Your task to perform on an android device: open app "Reddit" Image 0: 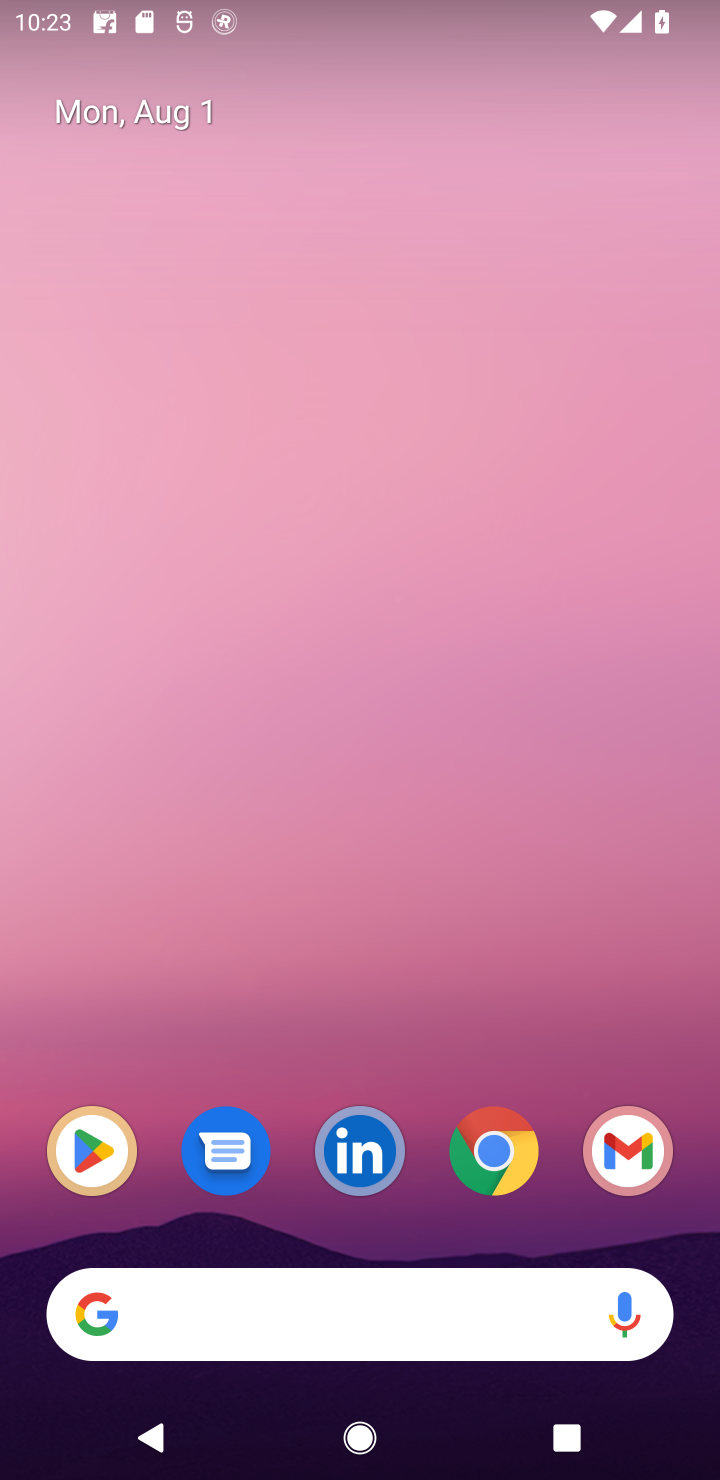
Step 0: click (95, 1171)
Your task to perform on an android device: open app "Reddit" Image 1: 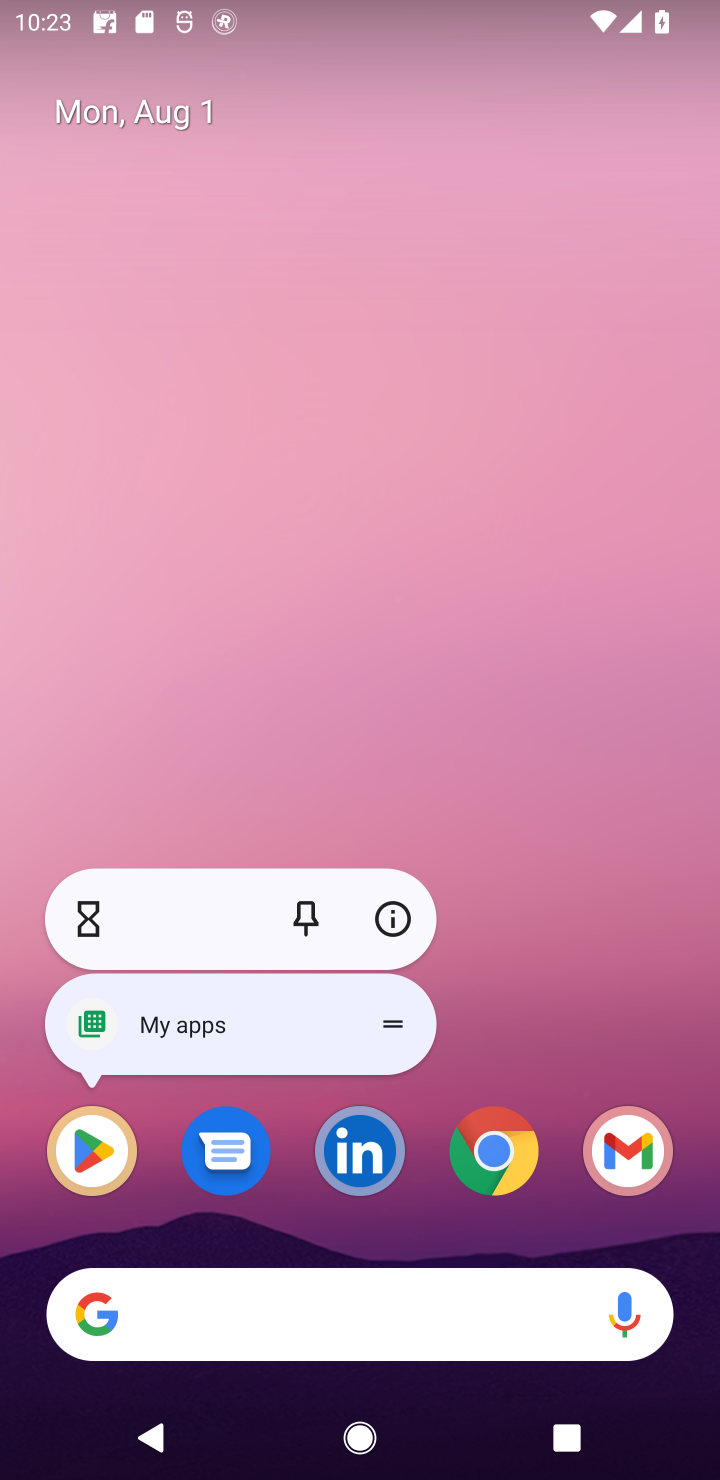
Step 1: click (85, 1166)
Your task to perform on an android device: open app "Reddit" Image 2: 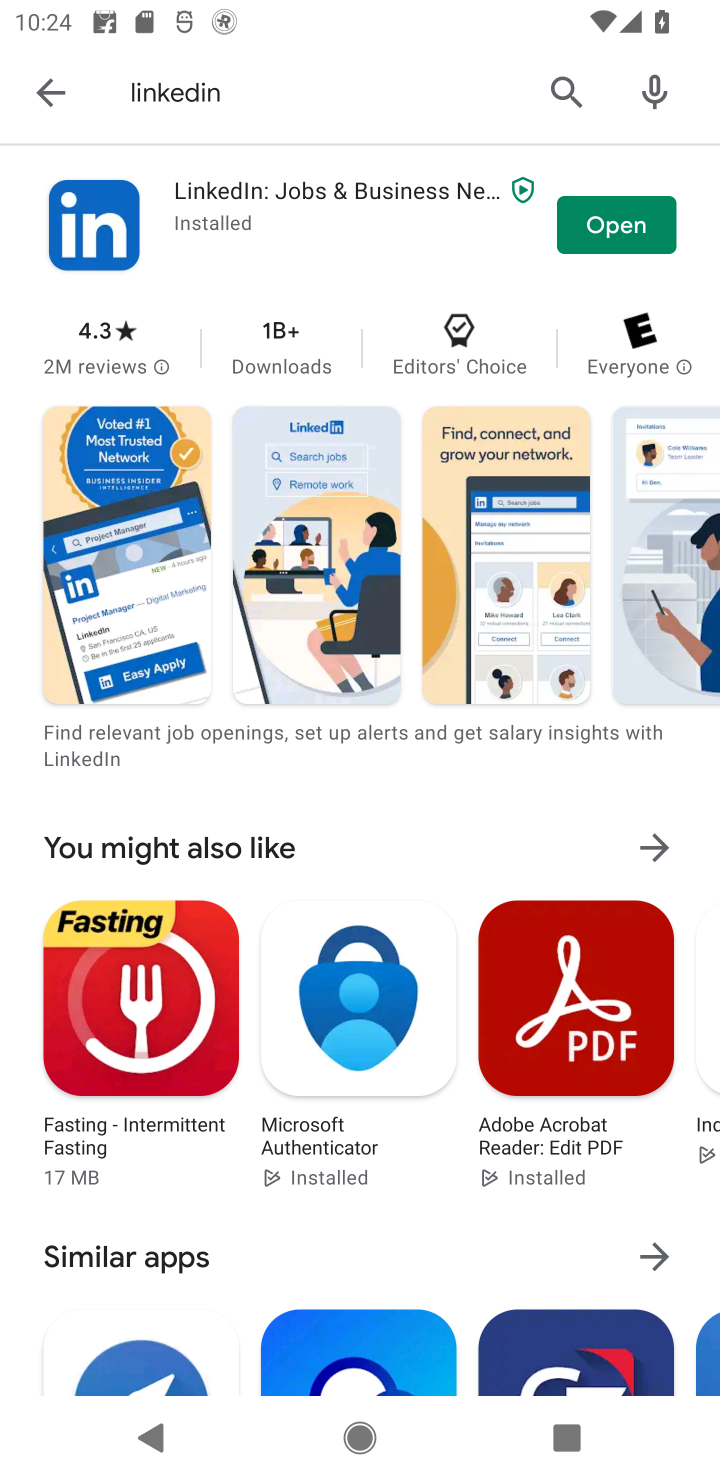
Step 2: click (111, 1140)
Your task to perform on an android device: open app "Reddit" Image 3: 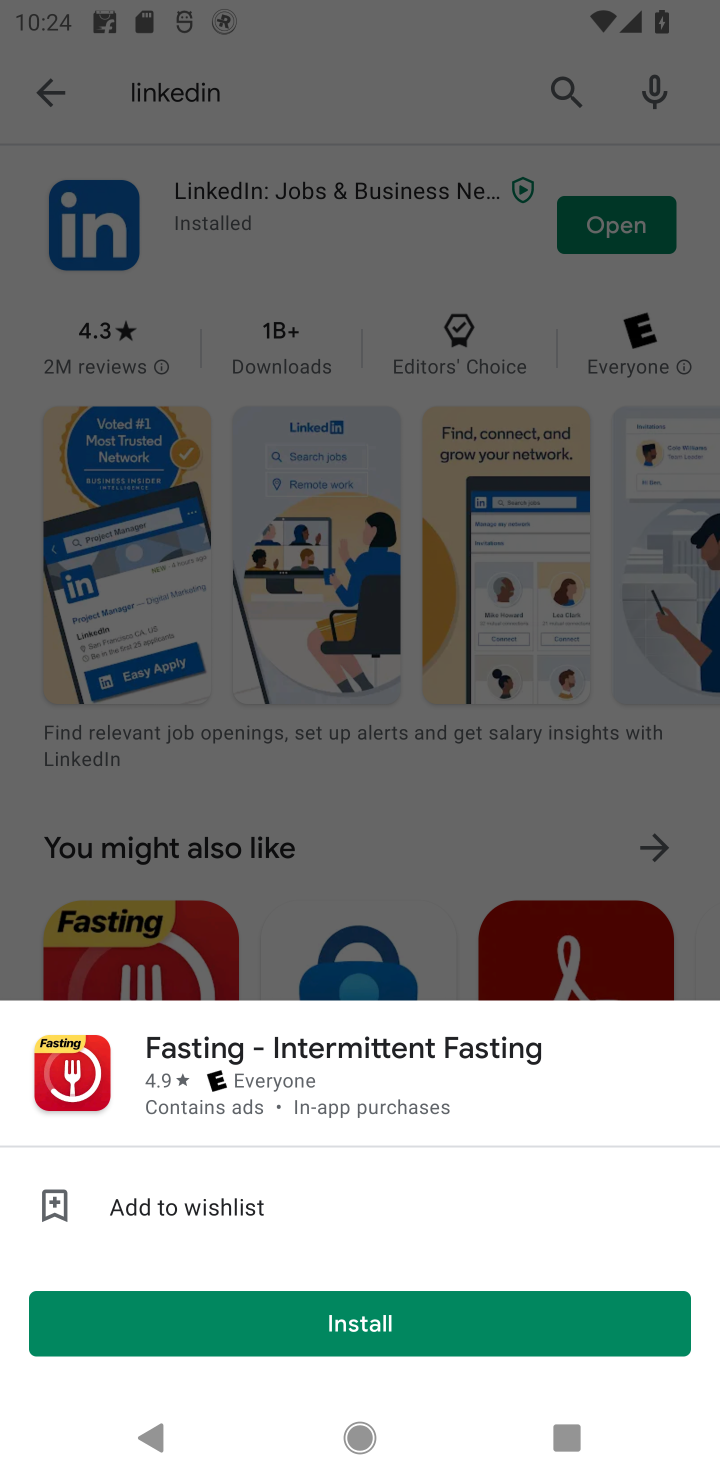
Step 3: click (547, 88)
Your task to perform on an android device: open app "Reddit" Image 4: 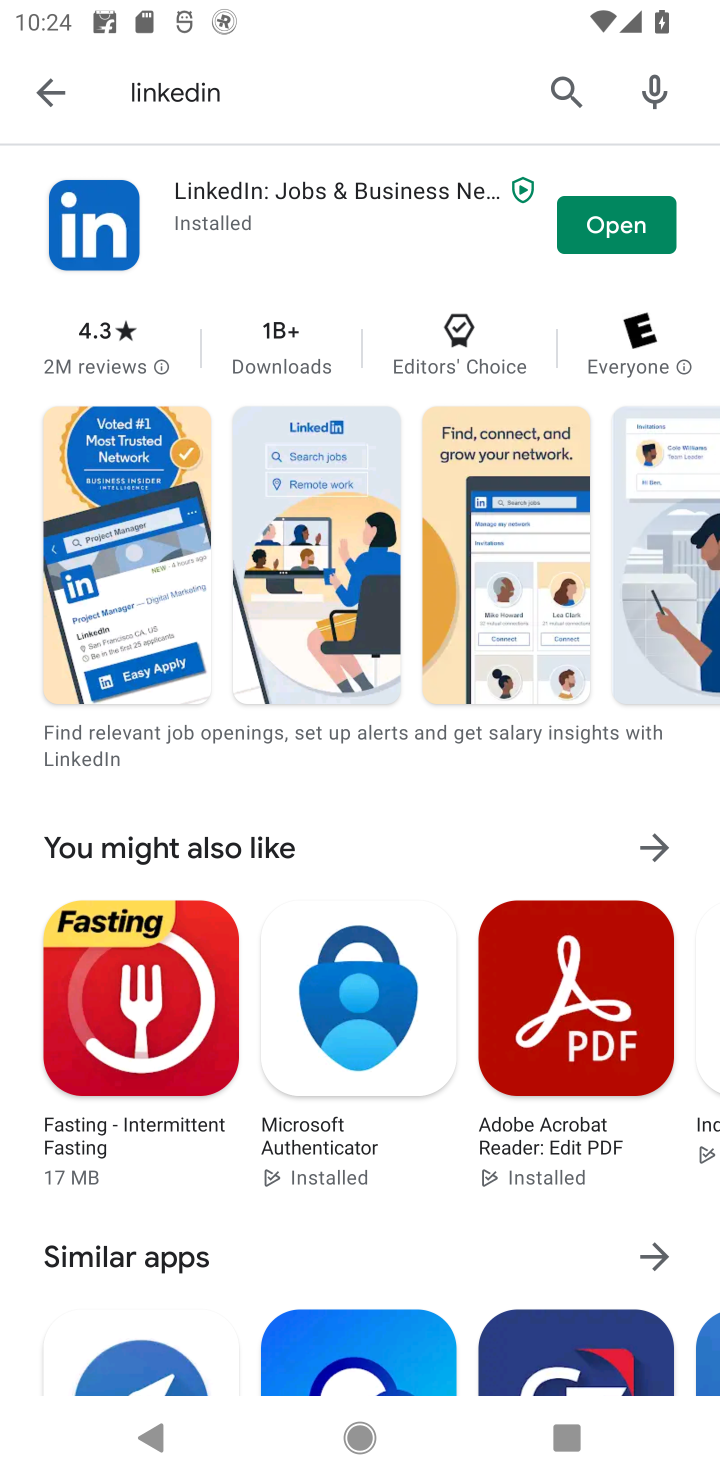
Step 4: click (547, 88)
Your task to perform on an android device: open app "Reddit" Image 5: 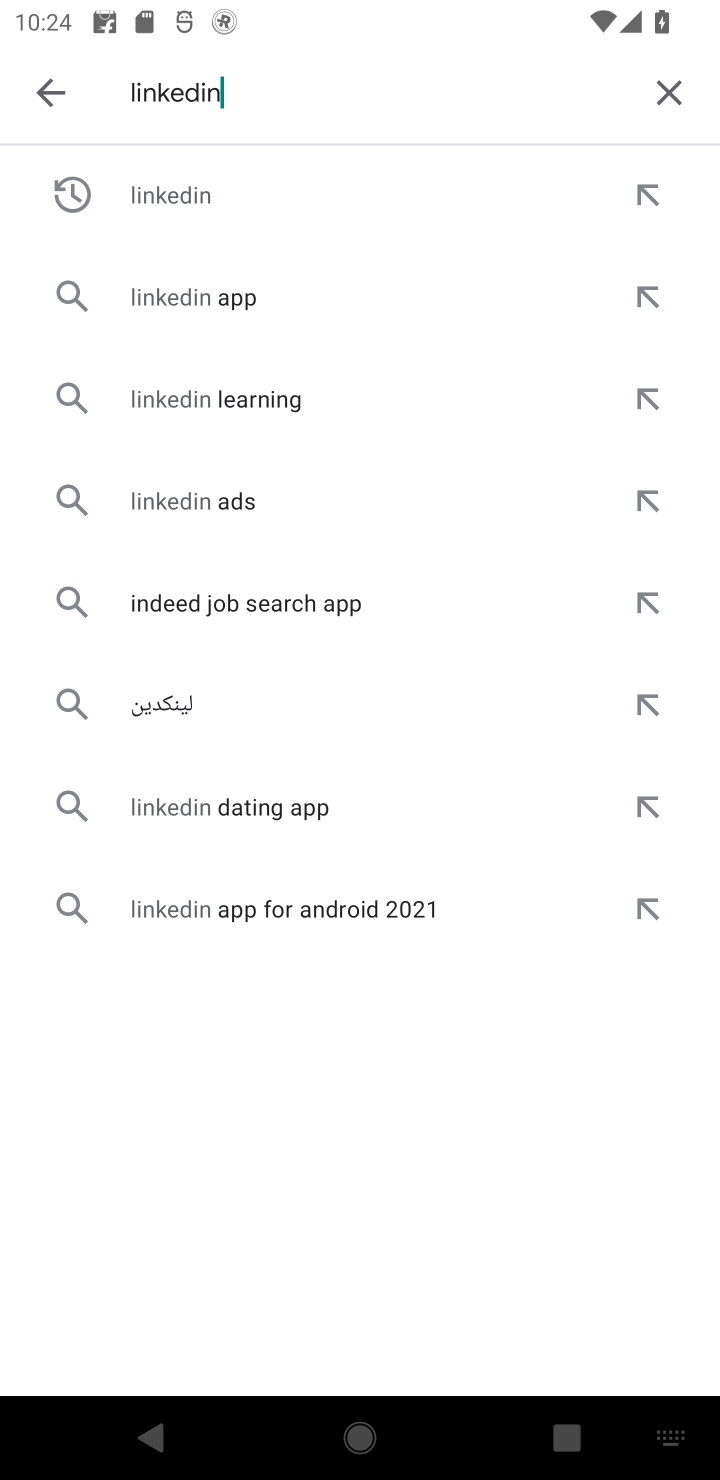
Step 5: click (644, 88)
Your task to perform on an android device: open app "Reddit" Image 6: 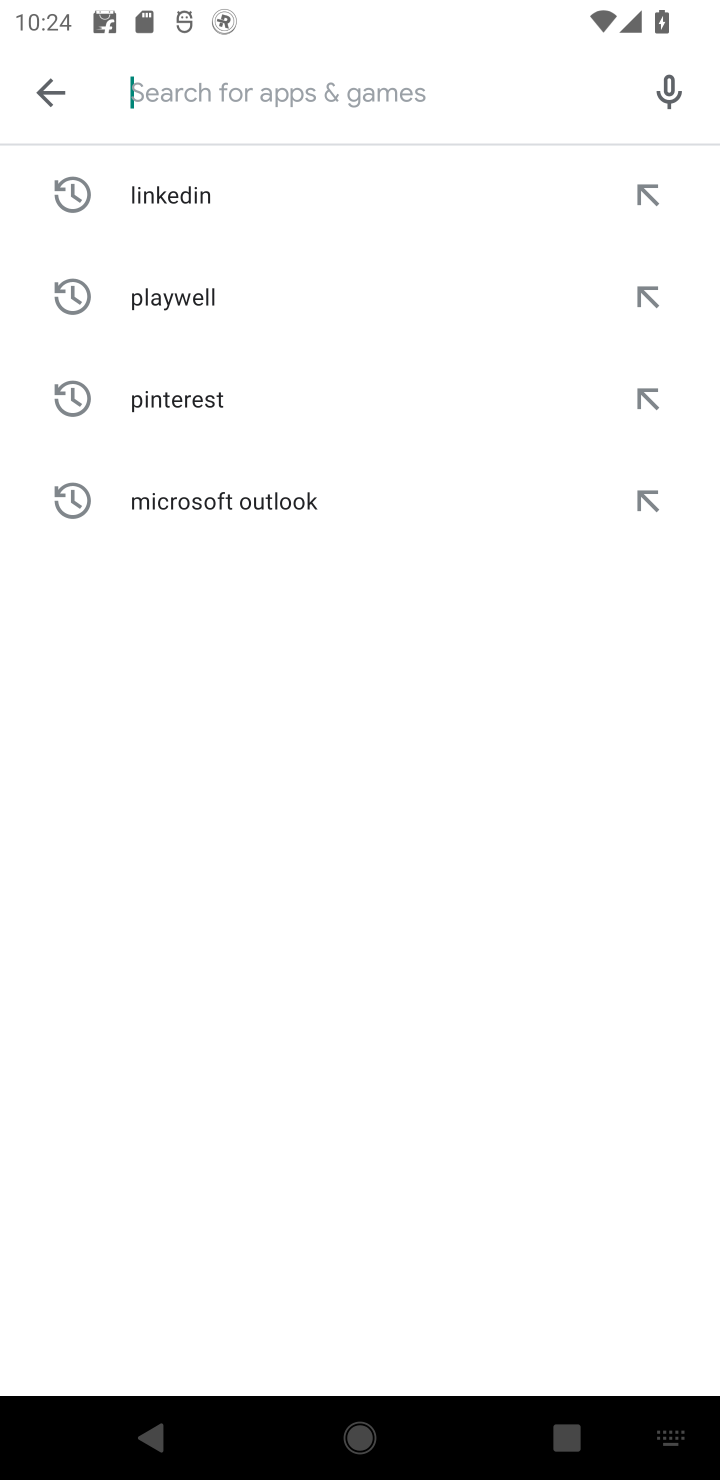
Step 6: type "Reddit"
Your task to perform on an android device: open app "Reddit" Image 7: 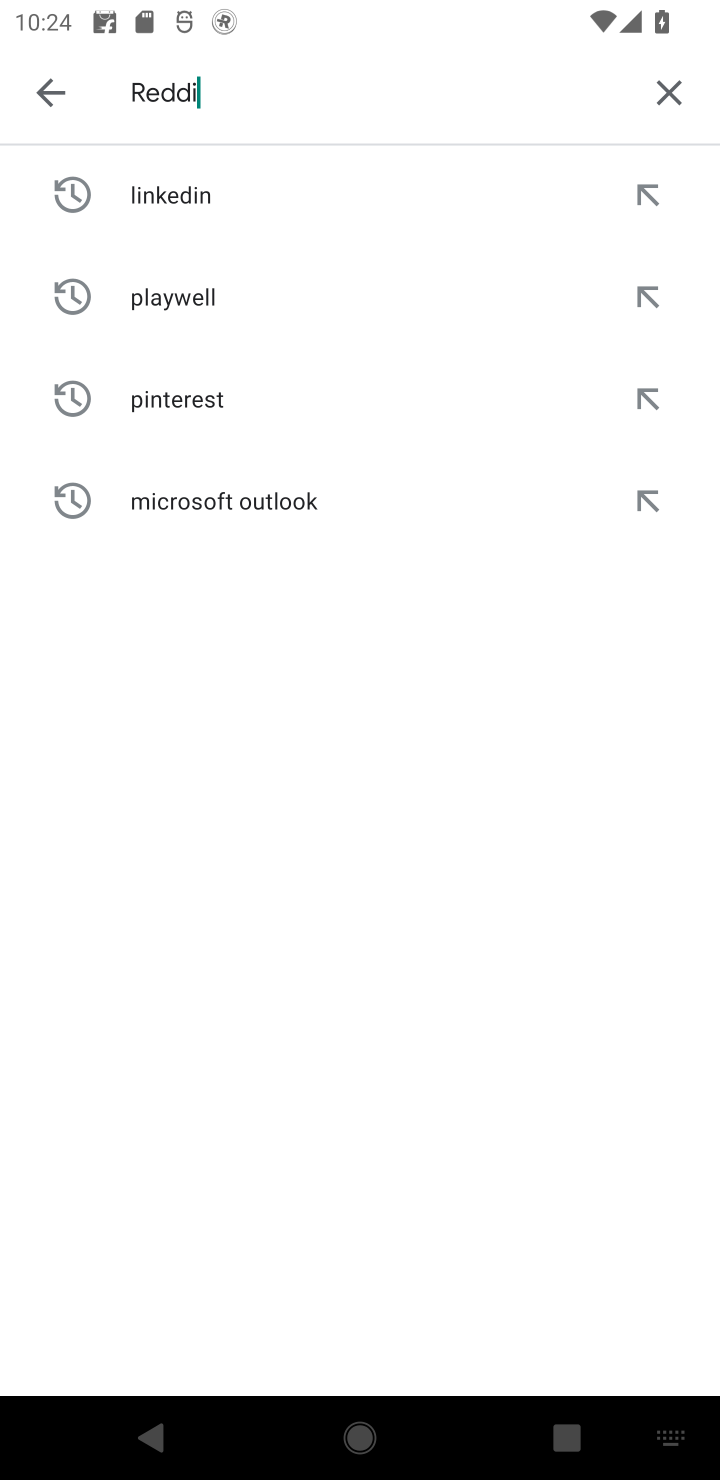
Step 7: type ""
Your task to perform on an android device: open app "Reddit" Image 8: 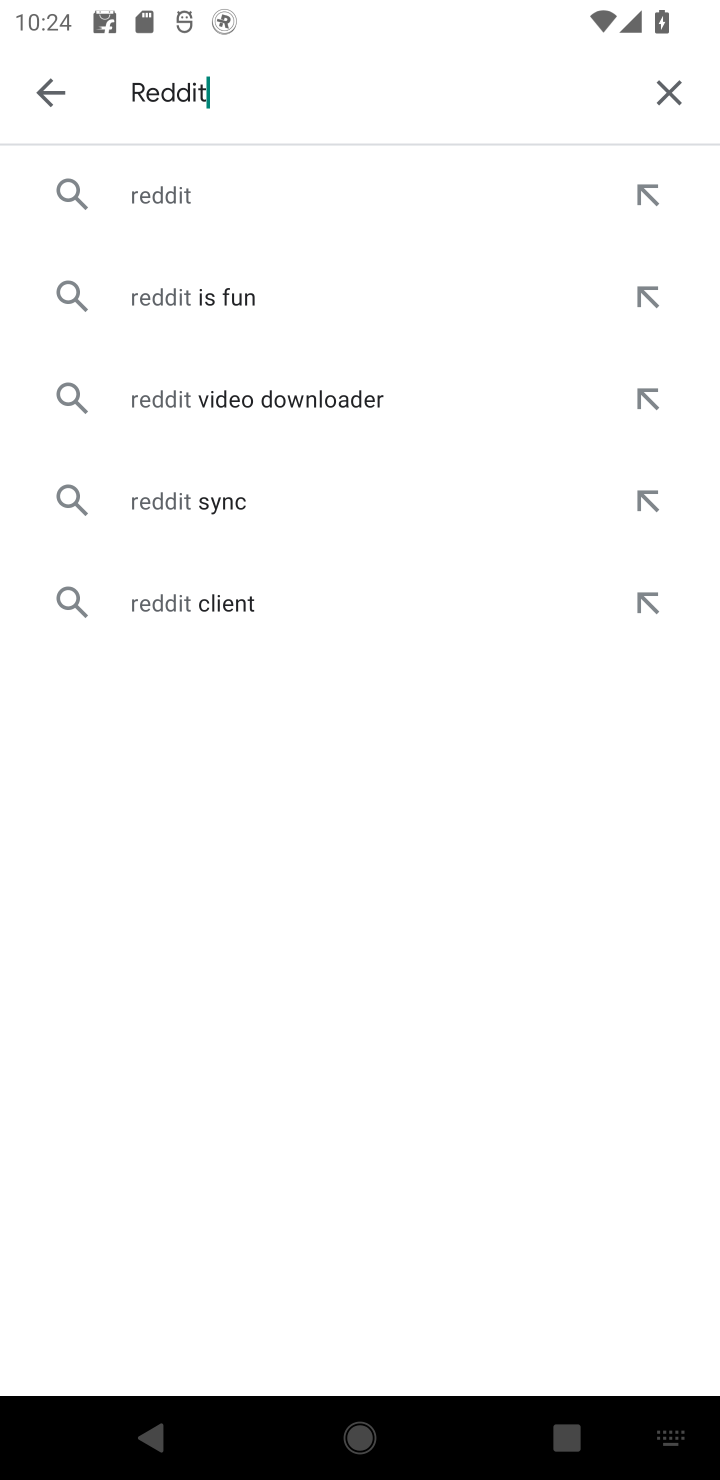
Step 8: click (197, 195)
Your task to perform on an android device: open app "Reddit" Image 9: 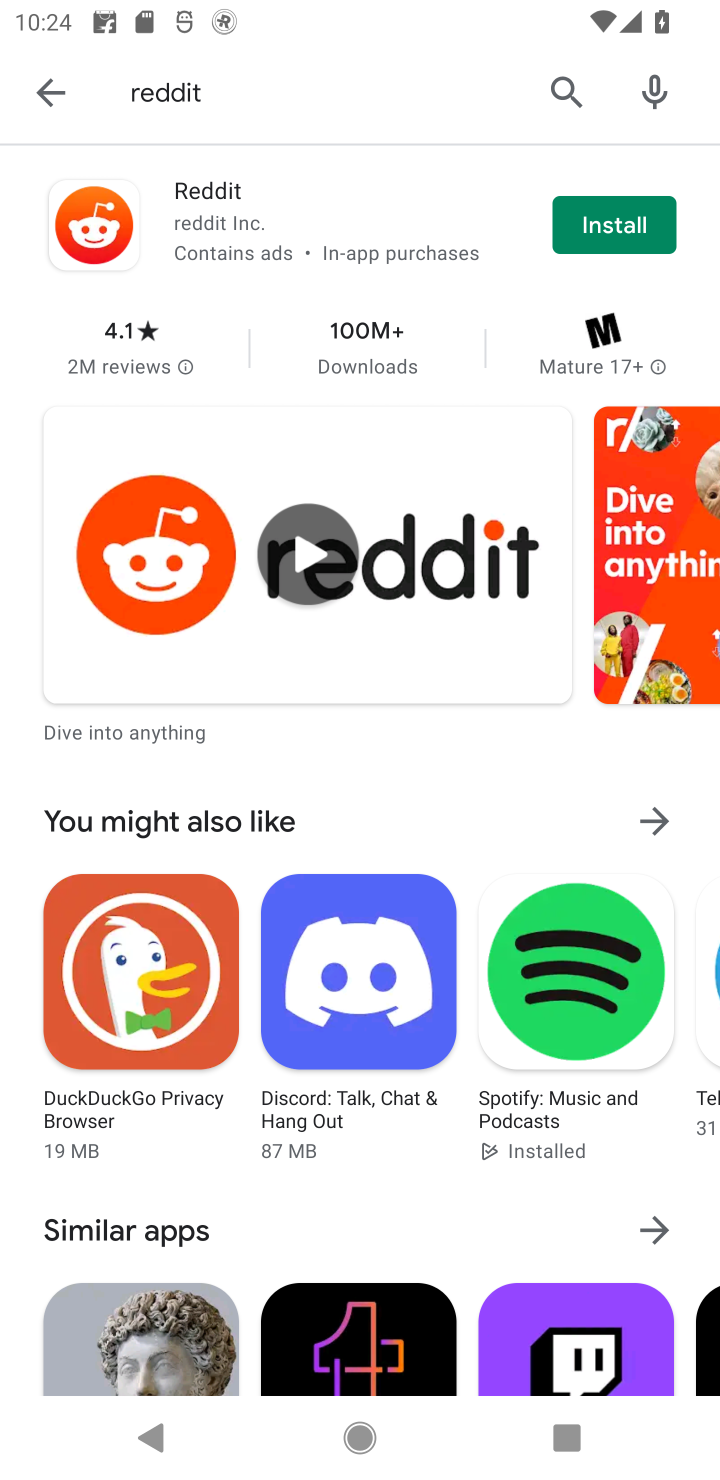
Step 9: task complete